Your task to perform on an android device: Toggle the flashlight Image 0: 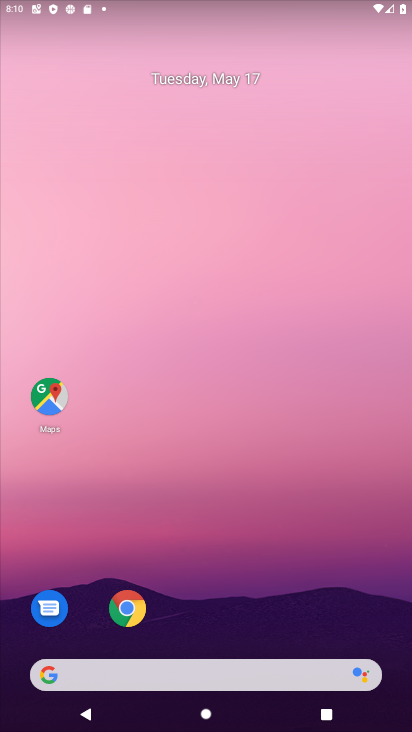
Step 0: drag from (249, 638) to (278, 154)
Your task to perform on an android device: Toggle the flashlight Image 1: 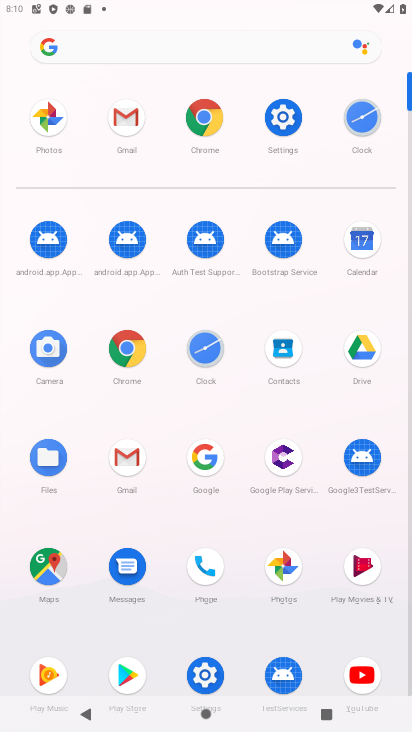
Step 1: click (276, 109)
Your task to perform on an android device: Toggle the flashlight Image 2: 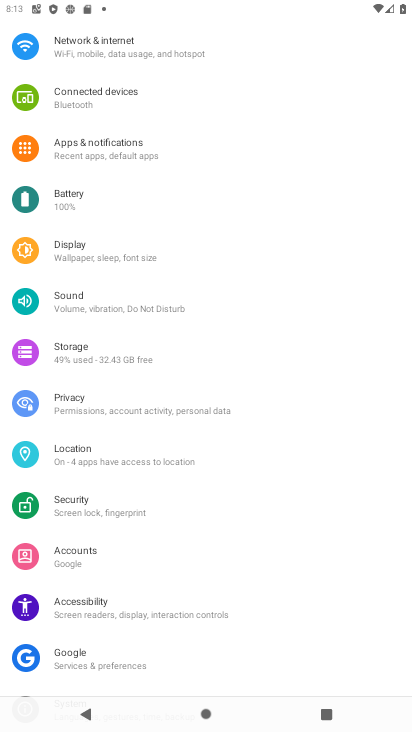
Step 2: task complete